Your task to perform on an android device: Search for vegetarian restaurants on Maps Image 0: 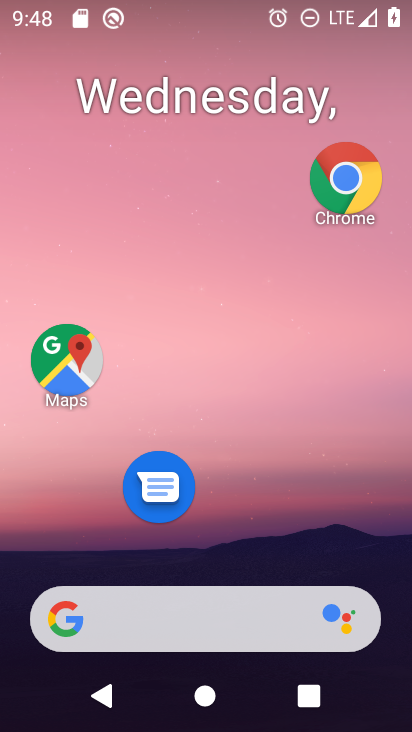
Step 0: drag from (236, 631) to (201, 2)
Your task to perform on an android device: Search for vegetarian restaurants on Maps Image 1: 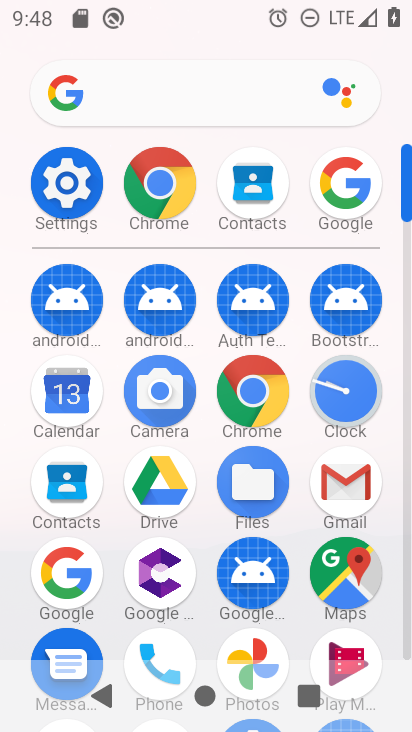
Step 1: click (362, 589)
Your task to perform on an android device: Search for vegetarian restaurants on Maps Image 2: 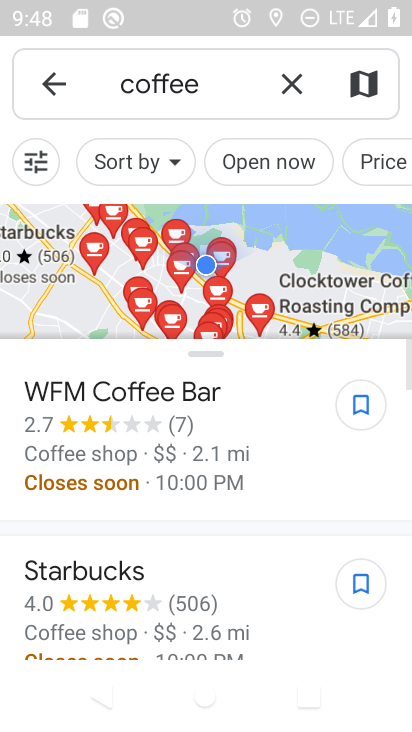
Step 2: click (299, 88)
Your task to perform on an android device: Search for vegetarian restaurants on Maps Image 3: 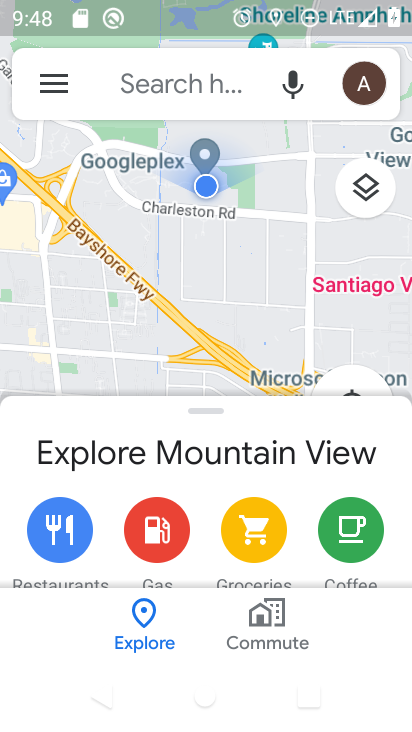
Step 3: click (213, 89)
Your task to perform on an android device: Search for vegetarian restaurants on Maps Image 4: 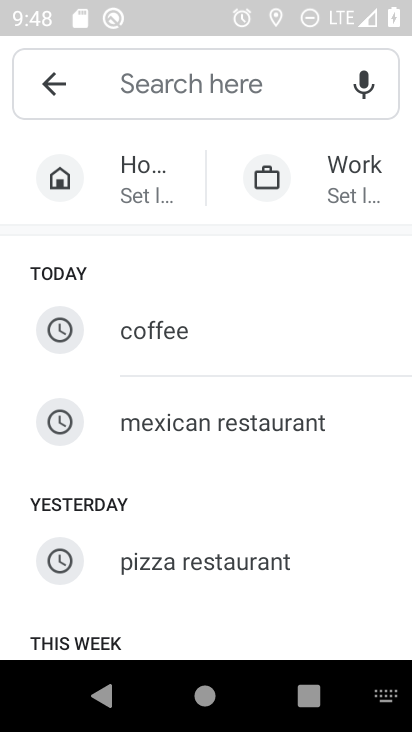
Step 4: drag from (263, 498) to (271, 131)
Your task to perform on an android device: Search for vegetarian restaurants on Maps Image 5: 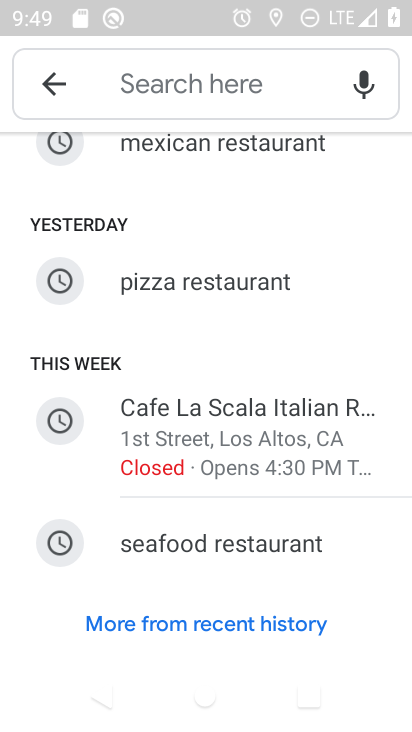
Step 5: drag from (228, 507) to (251, 148)
Your task to perform on an android device: Search for vegetarian restaurants on Maps Image 6: 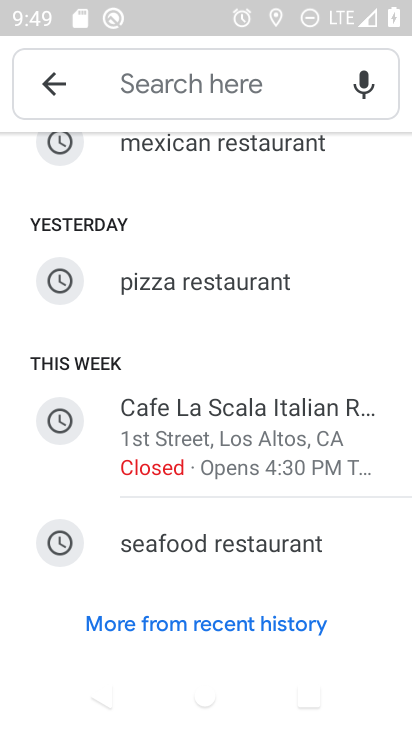
Step 6: click (200, 90)
Your task to perform on an android device: Search for vegetarian restaurants on Maps Image 7: 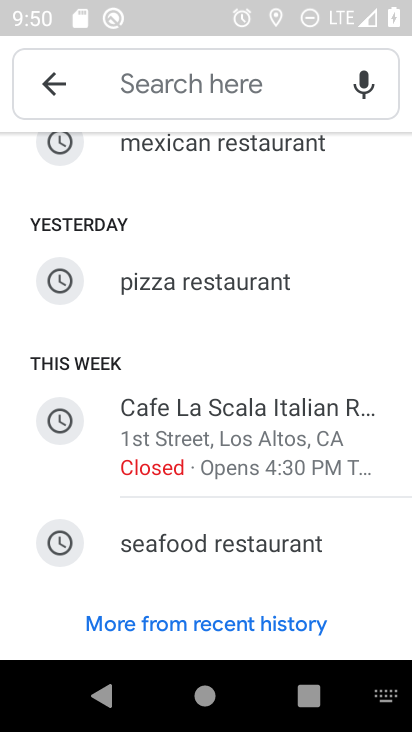
Step 7: type "vegetarian restaurants"
Your task to perform on an android device: Search for vegetarian restaurants on Maps Image 8: 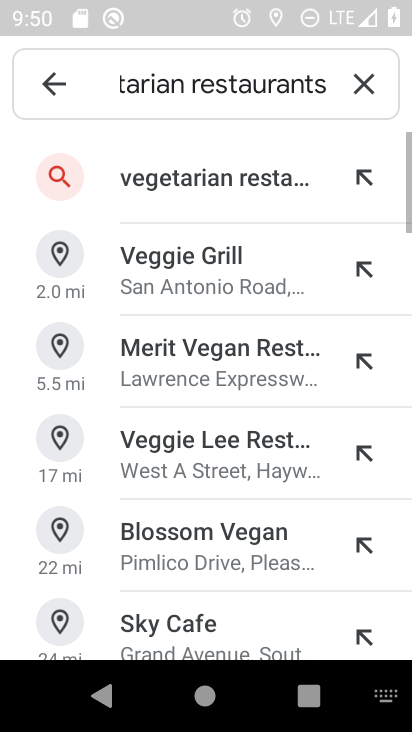
Step 8: click (266, 182)
Your task to perform on an android device: Search for vegetarian restaurants on Maps Image 9: 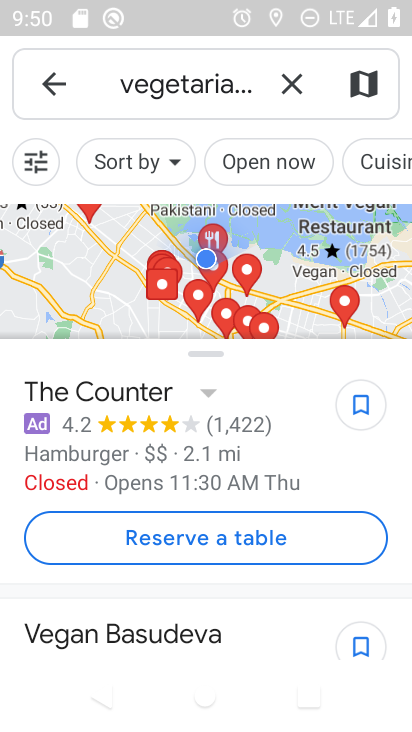
Step 9: task complete